Your task to perform on an android device: Search for razer blackwidow on amazon.com, select the first entry, and add it to the cart. Image 0: 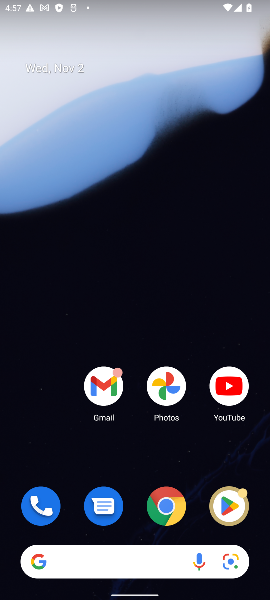
Step 0: click (165, 514)
Your task to perform on an android device: Search for razer blackwidow on amazon.com, select the first entry, and add it to the cart. Image 1: 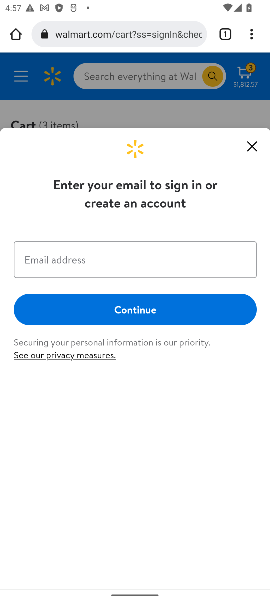
Step 1: click (132, 32)
Your task to perform on an android device: Search for razer blackwidow on amazon.com, select the first entry, and add it to the cart. Image 2: 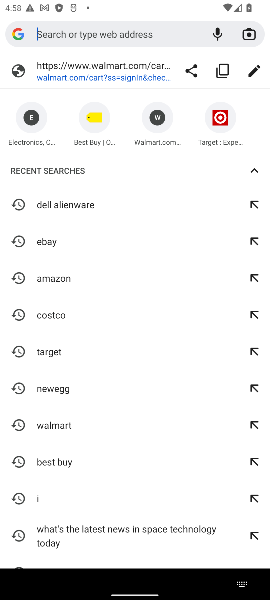
Step 2: type "amazon.com"
Your task to perform on an android device: Search for razer blackwidow on amazon.com, select the first entry, and add it to the cart. Image 3: 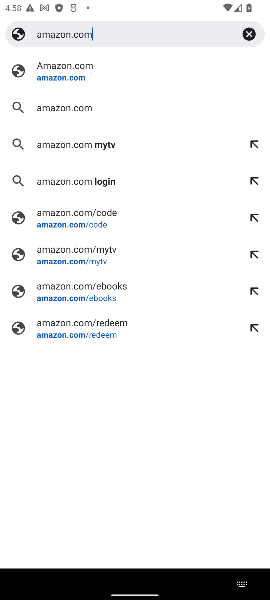
Step 3: press enter
Your task to perform on an android device: Search for razer blackwidow on amazon.com, select the first entry, and add it to the cart. Image 4: 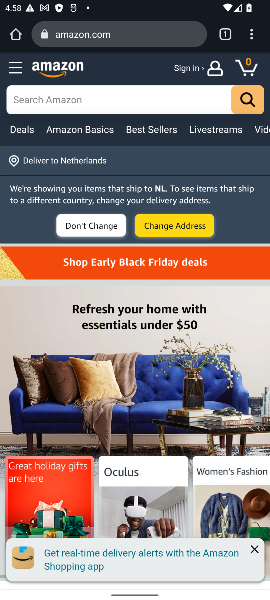
Step 4: click (95, 103)
Your task to perform on an android device: Search for razer blackwidow on amazon.com, select the first entry, and add it to the cart. Image 5: 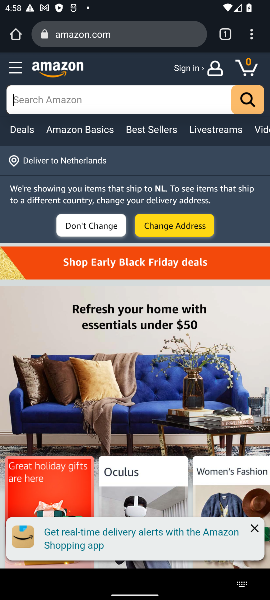
Step 5: type "razer blackwidow"
Your task to perform on an android device: Search for razer blackwidow on amazon.com, select the first entry, and add it to the cart. Image 6: 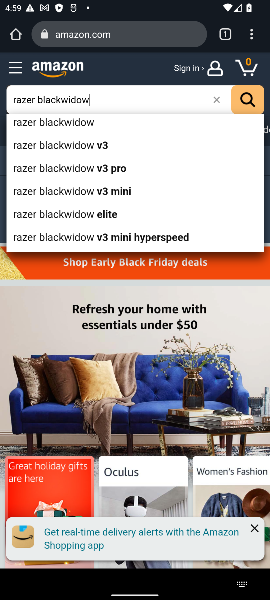
Step 6: click (83, 117)
Your task to perform on an android device: Search for razer blackwidow on amazon.com, select the first entry, and add it to the cart. Image 7: 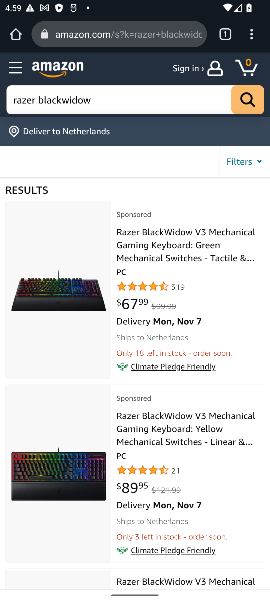
Step 7: click (76, 308)
Your task to perform on an android device: Search for razer blackwidow on amazon.com, select the first entry, and add it to the cart. Image 8: 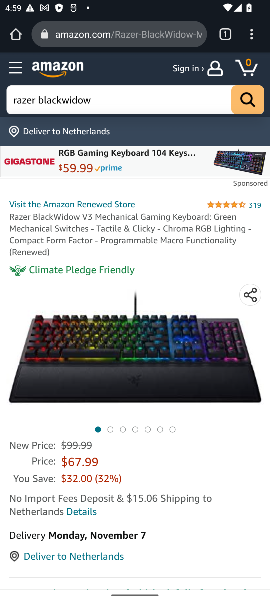
Step 8: drag from (160, 505) to (130, 163)
Your task to perform on an android device: Search for razer blackwidow on amazon.com, select the first entry, and add it to the cart. Image 9: 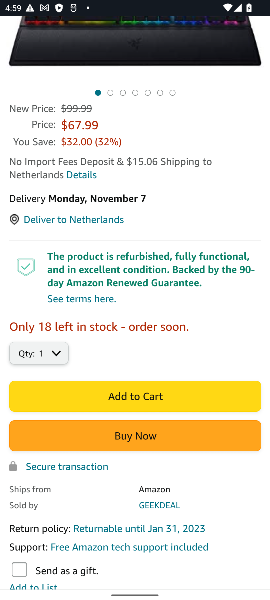
Step 9: click (132, 404)
Your task to perform on an android device: Search for razer blackwidow on amazon.com, select the first entry, and add it to the cart. Image 10: 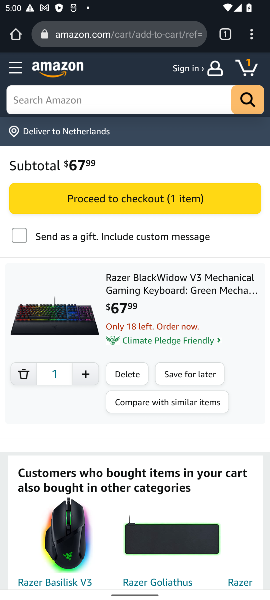
Step 10: task complete